Your task to perform on an android device: What's the weather today? Image 0: 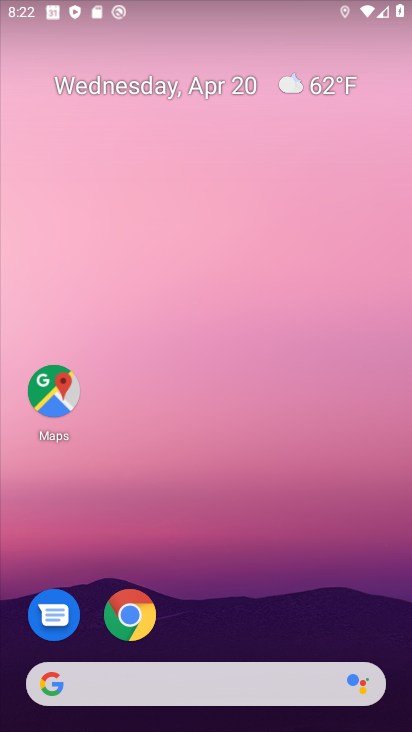
Step 0: drag from (242, 609) to (227, 55)
Your task to perform on an android device: What's the weather today? Image 1: 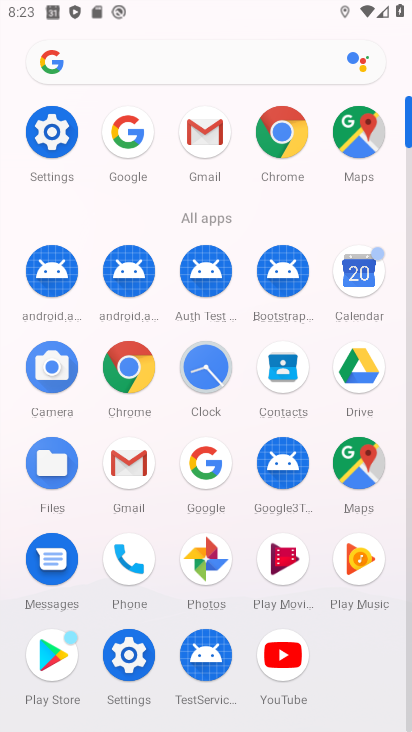
Step 1: click (126, 128)
Your task to perform on an android device: What's the weather today? Image 2: 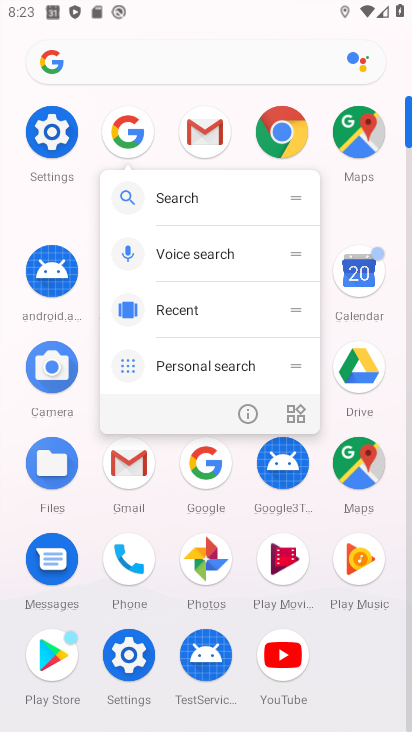
Step 2: click (125, 128)
Your task to perform on an android device: What's the weather today? Image 3: 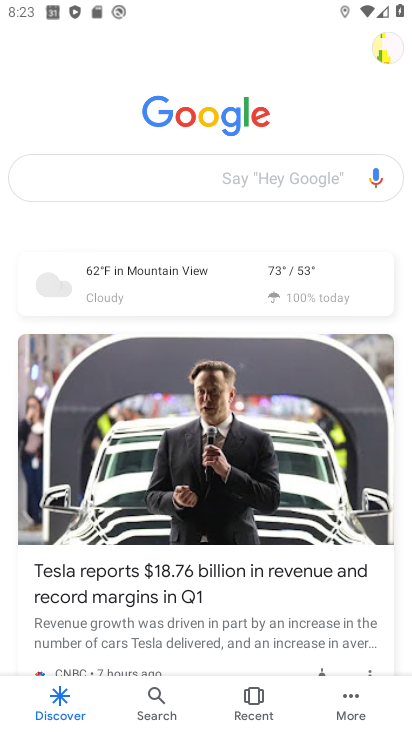
Step 3: click (171, 179)
Your task to perform on an android device: What's the weather today? Image 4: 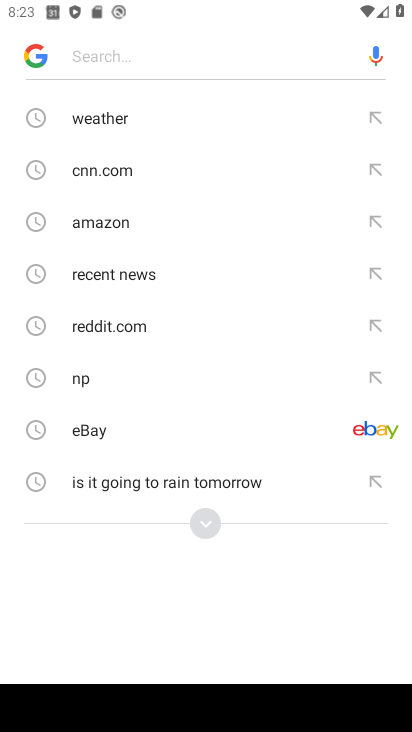
Step 4: type "weather today"
Your task to perform on an android device: What's the weather today? Image 5: 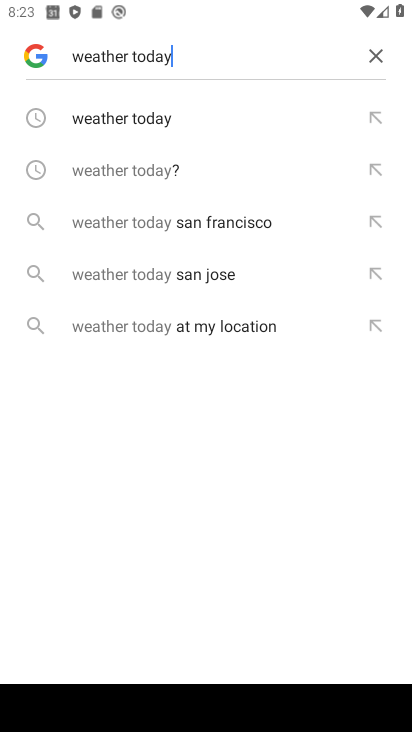
Step 5: click (149, 123)
Your task to perform on an android device: What's the weather today? Image 6: 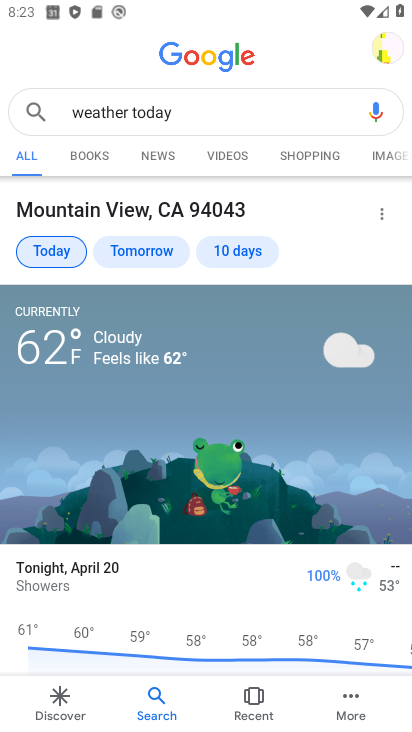
Step 6: task complete